Your task to perform on an android device: see sites visited before in the chrome app Image 0: 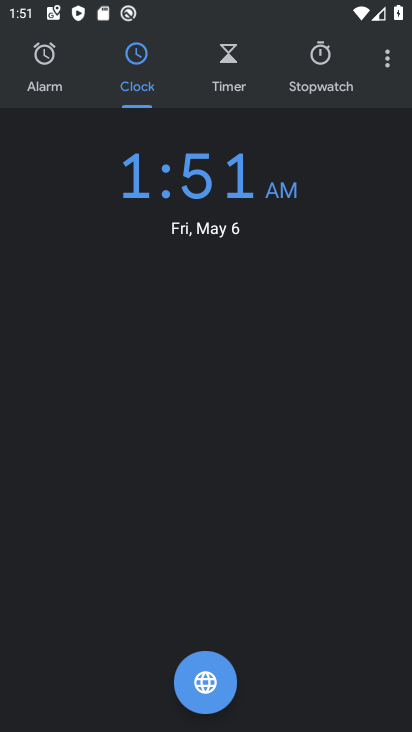
Step 0: press home button
Your task to perform on an android device: see sites visited before in the chrome app Image 1: 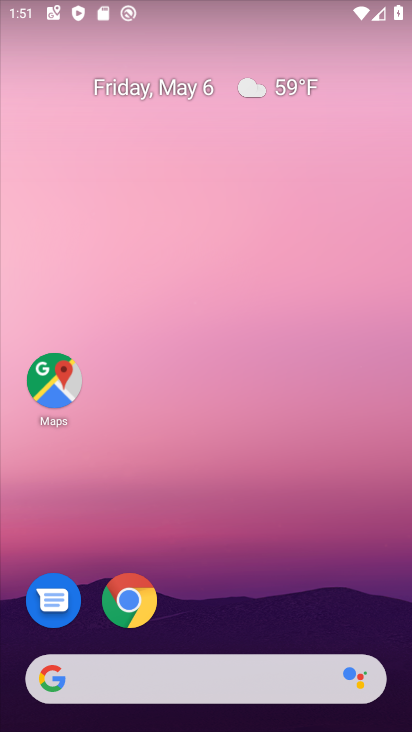
Step 1: drag from (233, 593) to (271, 67)
Your task to perform on an android device: see sites visited before in the chrome app Image 2: 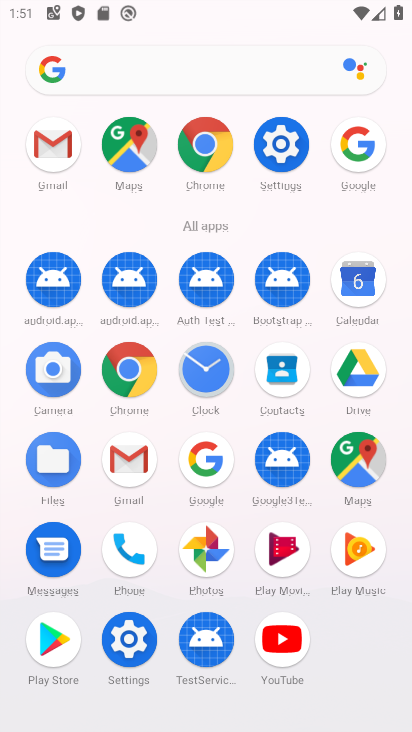
Step 2: click (204, 145)
Your task to perform on an android device: see sites visited before in the chrome app Image 3: 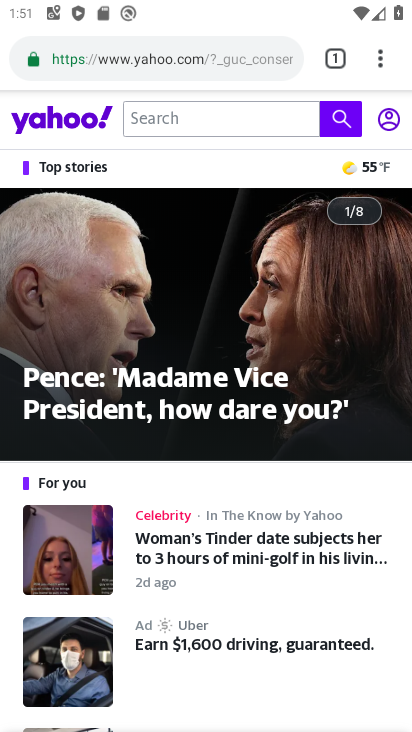
Step 3: click (372, 58)
Your task to perform on an android device: see sites visited before in the chrome app Image 4: 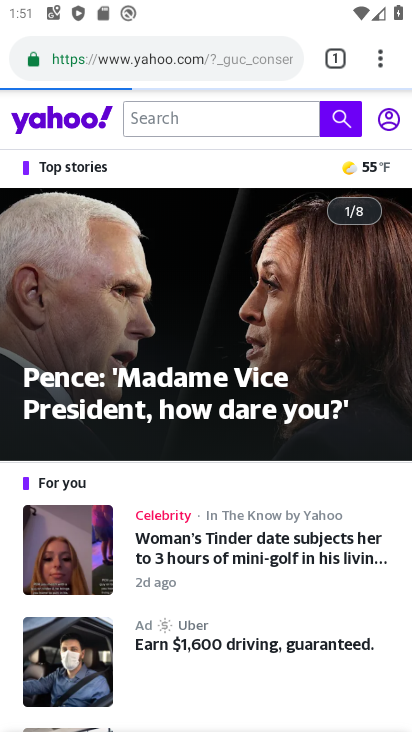
Step 4: click (373, 62)
Your task to perform on an android device: see sites visited before in the chrome app Image 5: 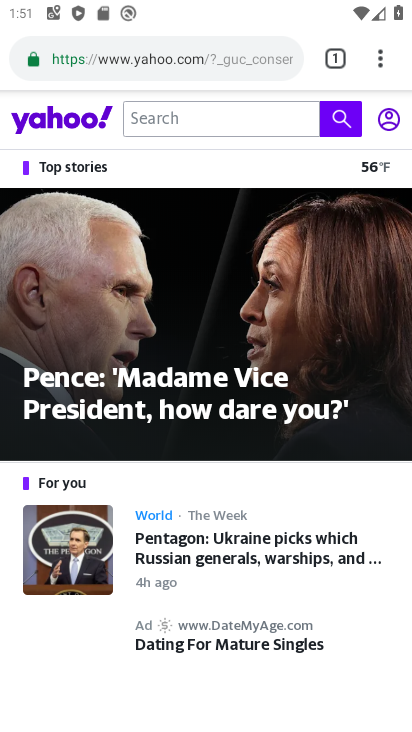
Step 5: click (373, 62)
Your task to perform on an android device: see sites visited before in the chrome app Image 6: 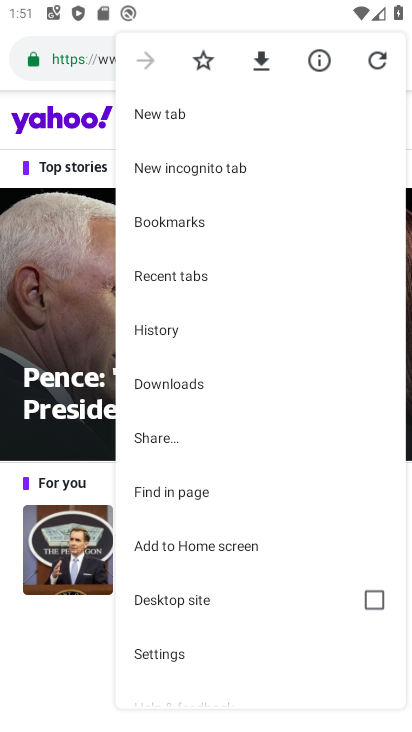
Step 6: click (168, 330)
Your task to perform on an android device: see sites visited before in the chrome app Image 7: 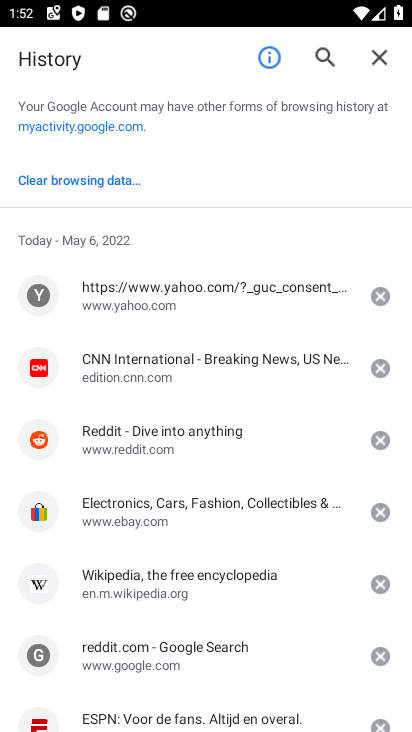
Step 7: task complete